Your task to perform on an android device: Open sound settings Image 0: 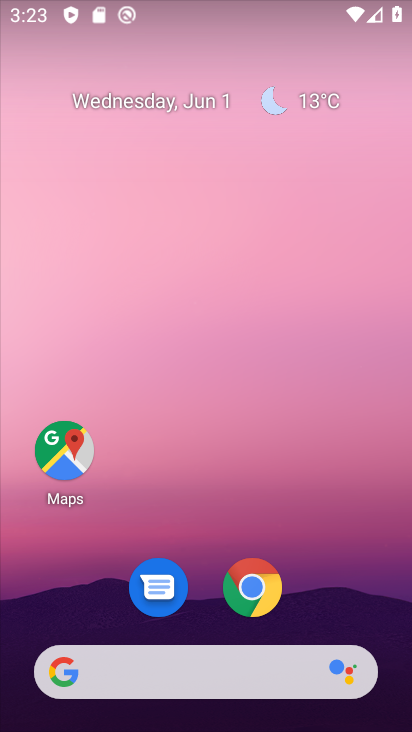
Step 0: click (290, 24)
Your task to perform on an android device: Open sound settings Image 1: 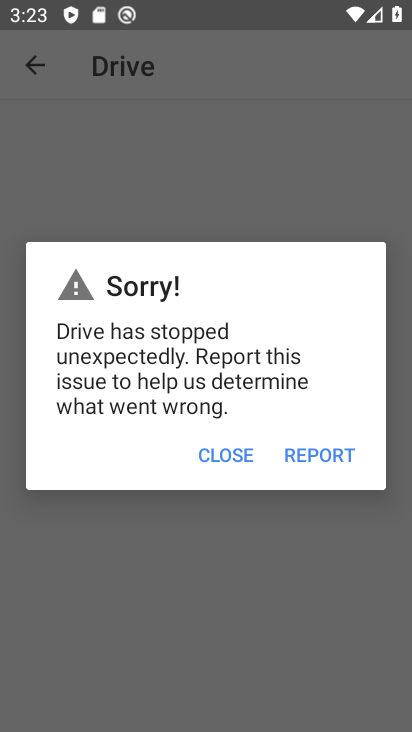
Step 1: press back button
Your task to perform on an android device: Open sound settings Image 2: 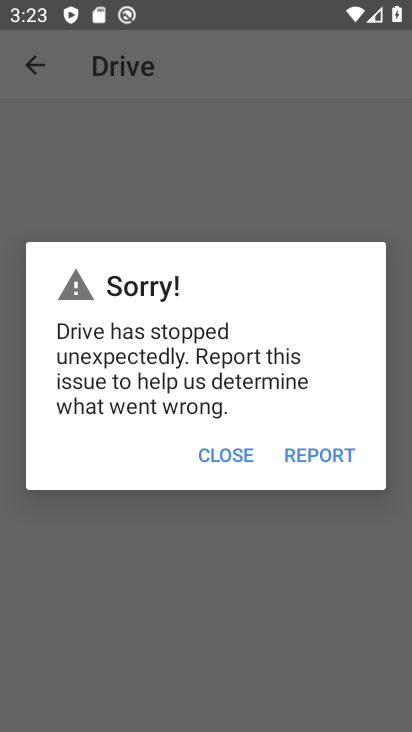
Step 2: press home button
Your task to perform on an android device: Open sound settings Image 3: 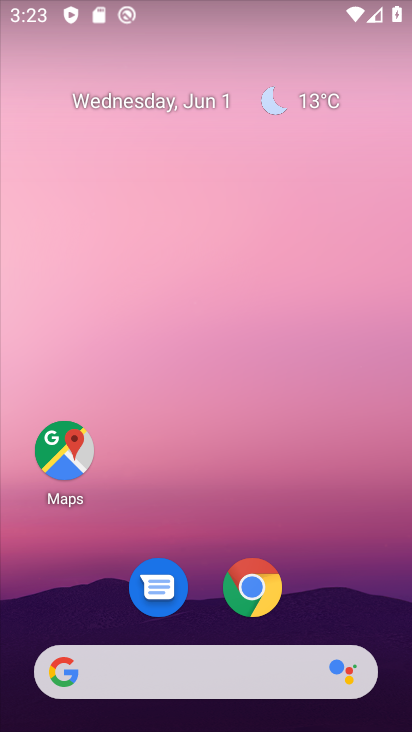
Step 3: drag from (317, 564) to (216, 15)
Your task to perform on an android device: Open sound settings Image 4: 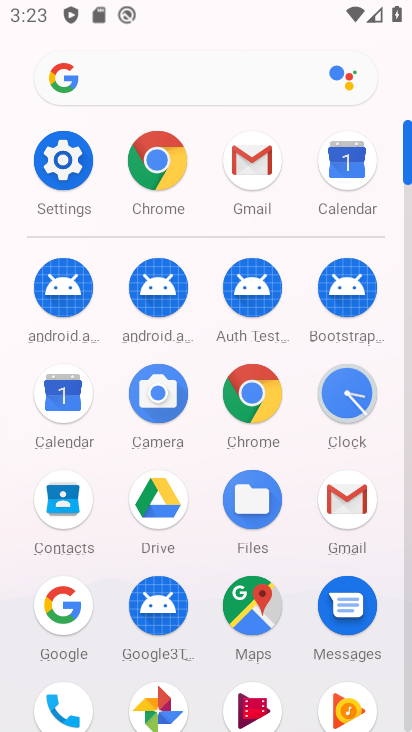
Step 4: click (65, 157)
Your task to perform on an android device: Open sound settings Image 5: 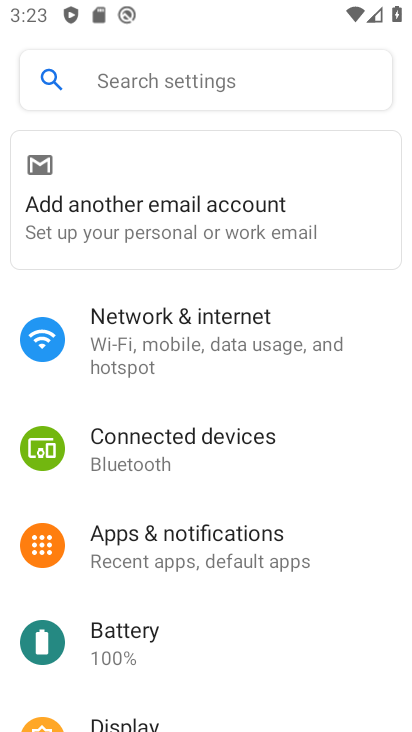
Step 5: drag from (288, 634) to (323, 169)
Your task to perform on an android device: Open sound settings Image 6: 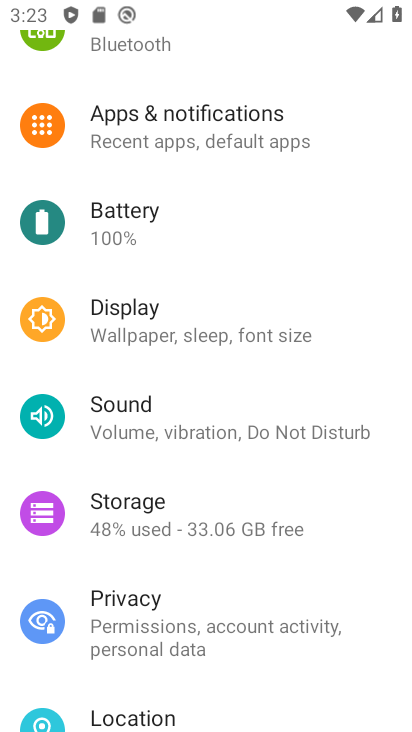
Step 6: click (176, 431)
Your task to perform on an android device: Open sound settings Image 7: 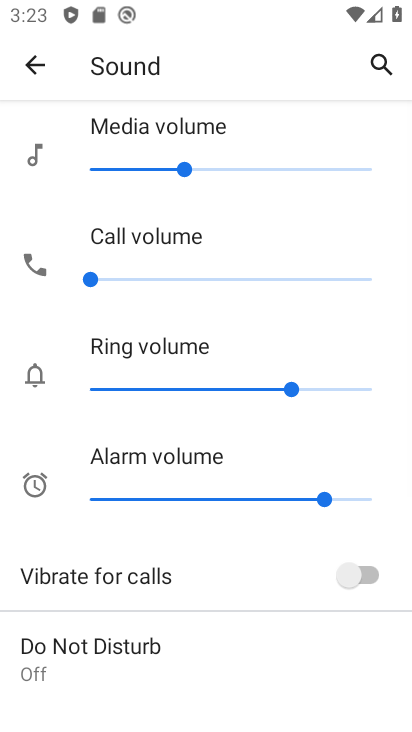
Step 7: drag from (210, 580) to (223, 114)
Your task to perform on an android device: Open sound settings Image 8: 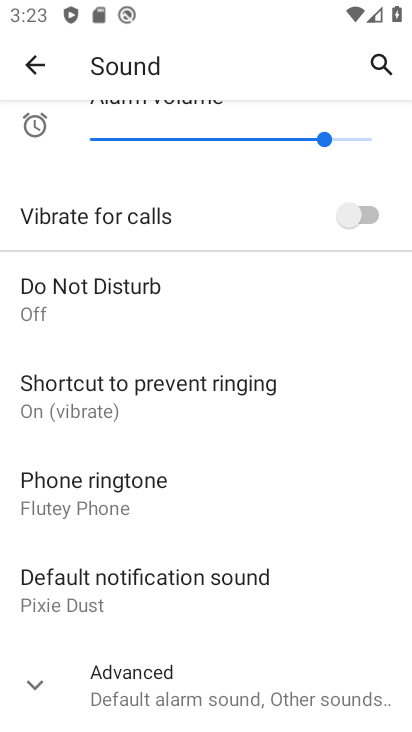
Step 8: click (60, 669)
Your task to perform on an android device: Open sound settings Image 9: 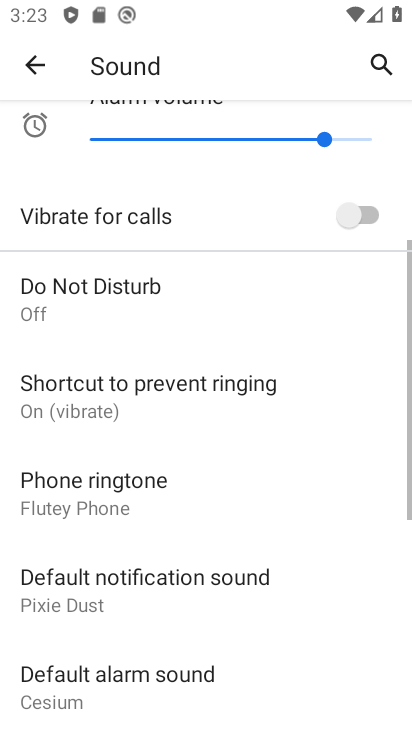
Step 9: task complete